Your task to perform on an android device: Open Google Chrome and open the bookmarks view Image 0: 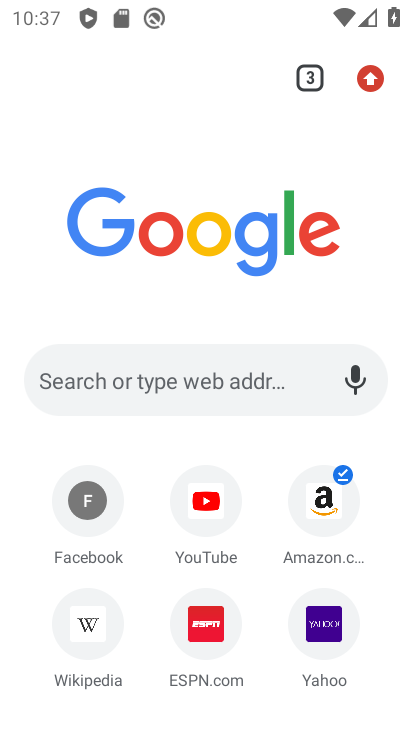
Step 0: drag from (369, 74) to (161, 374)
Your task to perform on an android device: Open Google Chrome and open the bookmarks view Image 1: 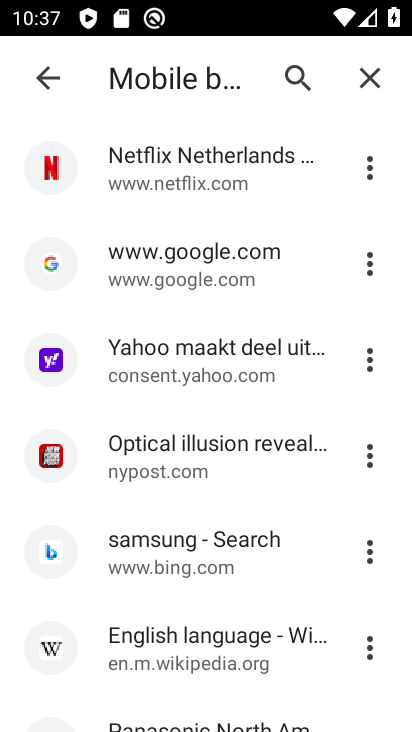
Step 1: task complete